Your task to perform on an android device: Open network settings Image 0: 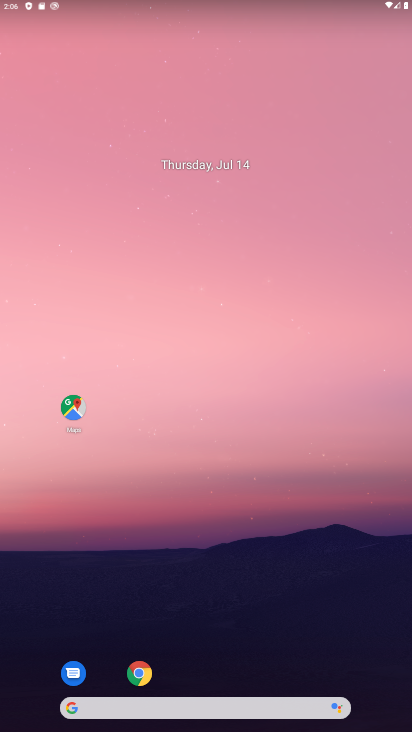
Step 0: drag from (222, 628) to (139, 46)
Your task to perform on an android device: Open network settings Image 1: 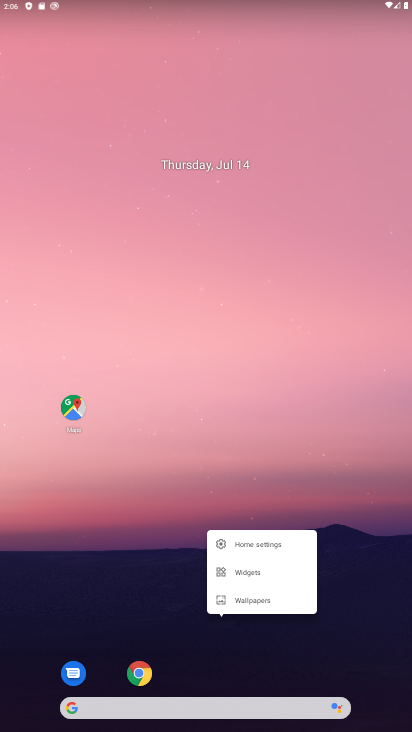
Step 1: click (154, 472)
Your task to perform on an android device: Open network settings Image 2: 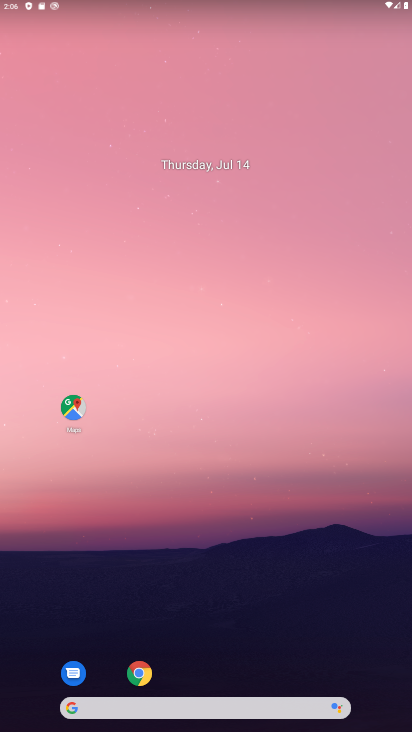
Step 2: drag from (265, 566) to (270, 172)
Your task to perform on an android device: Open network settings Image 3: 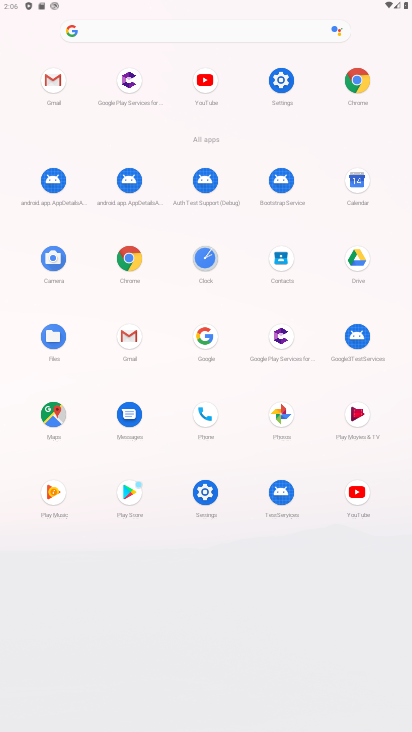
Step 3: click (282, 74)
Your task to perform on an android device: Open network settings Image 4: 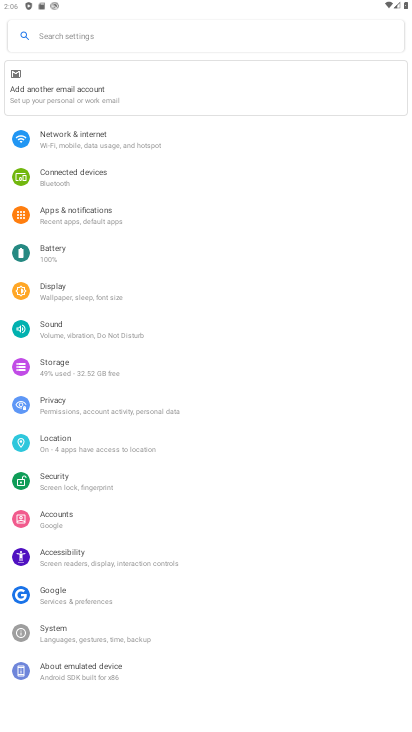
Step 4: click (91, 134)
Your task to perform on an android device: Open network settings Image 5: 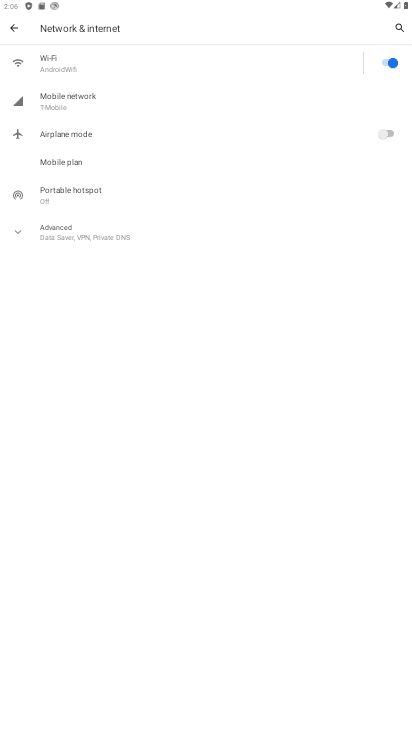
Step 5: click (97, 94)
Your task to perform on an android device: Open network settings Image 6: 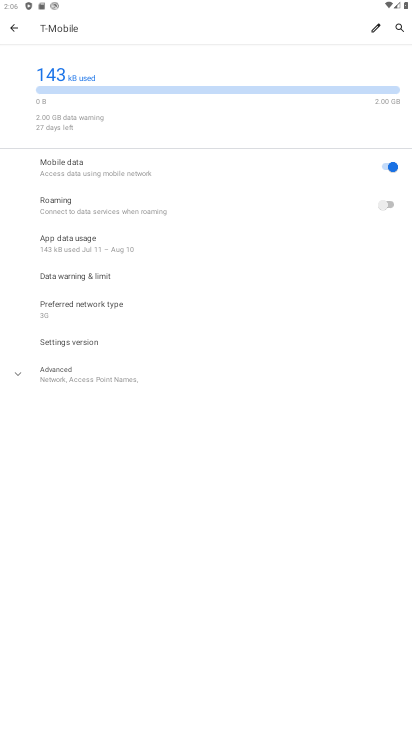
Step 6: task complete